Your task to perform on an android device: When is my next meeting? Image 0: 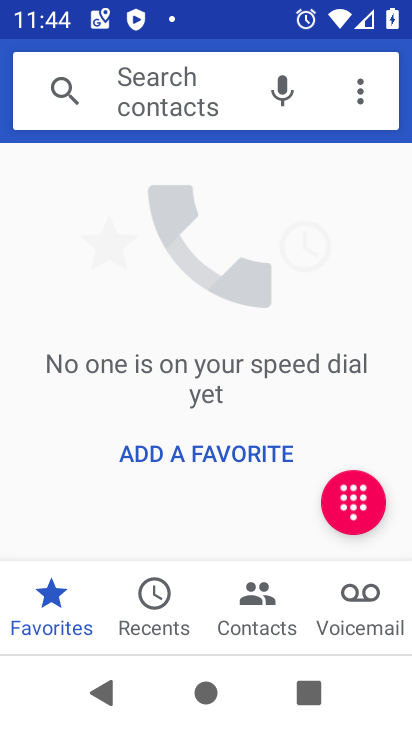
Step 0: press home button
Your task to perform on an android device: When is my next meeting? Image 1: 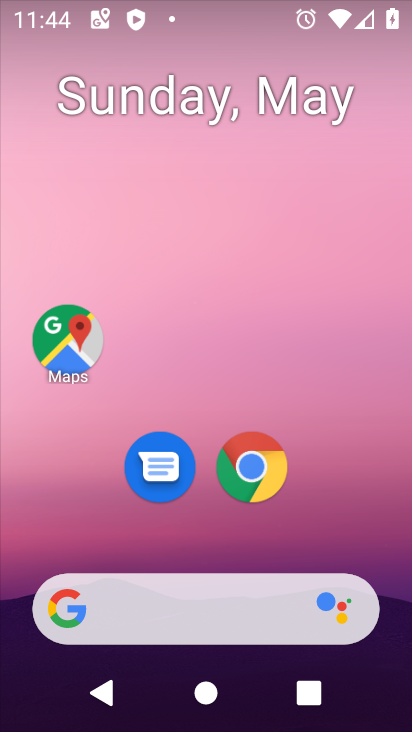
Step 1: drag from (374, 567) to (356, 18)
Your task to perform on an android device: When is my next meeting? Image 2: 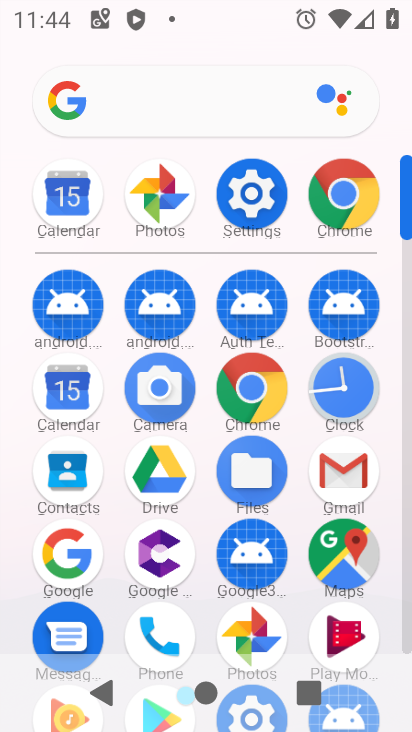
Step 2: click (69, 203)
Your task to perform on an android device: When is my next meeting? Image 3: 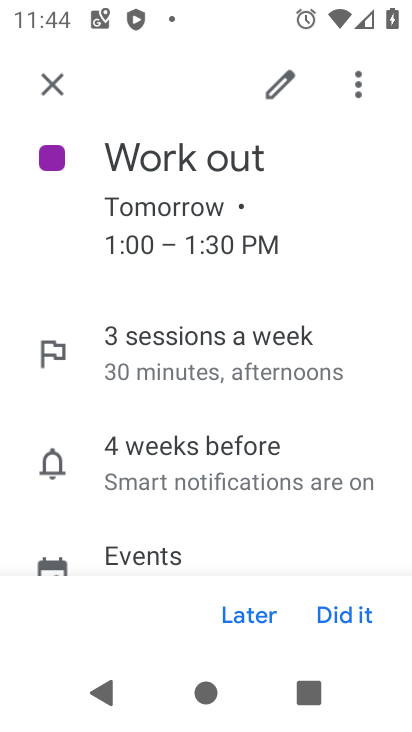
Step 3: click (43, 98)
Your task to perform on an android device: When is my next meeting? Image 4: 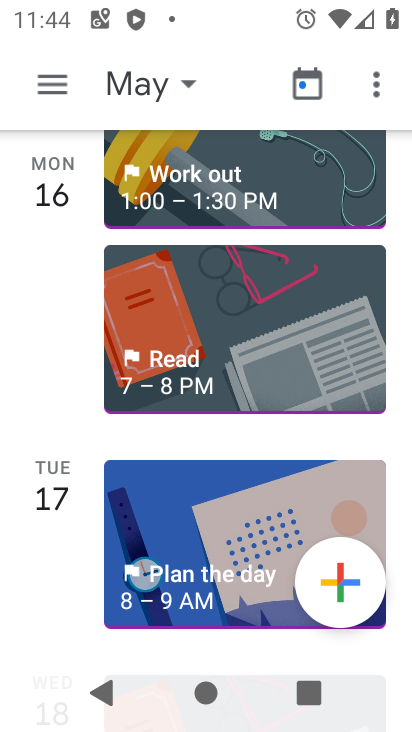
Step 4: drag from (274, 479) to (264, 63)
Your task to perform on an android device: When is my next meeting? Image 5: 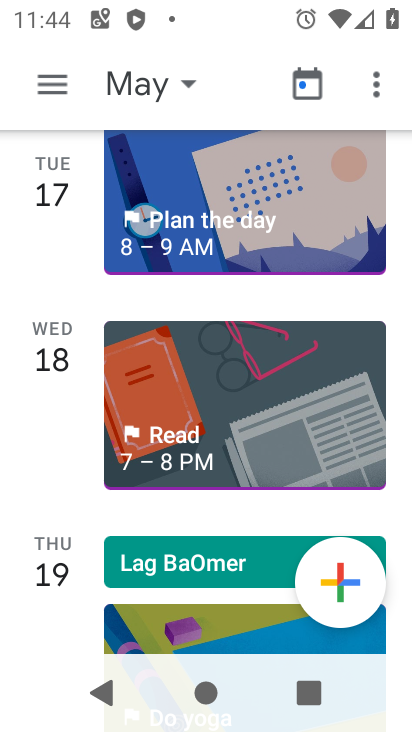
Step 5: drag from (249, 547) to (198, 89)
Your task to perform on an android device: When is my next meeting? Image 6: 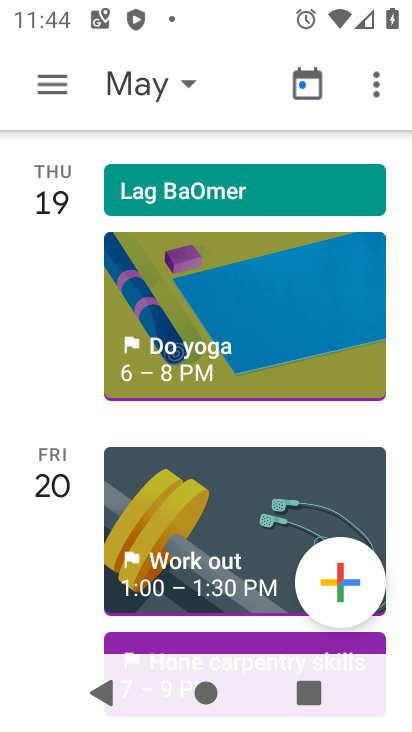
Step 6: drag from (207, 540) to (195, 103)
Your task to perform on an android device: When is my next meeting? Image 7: 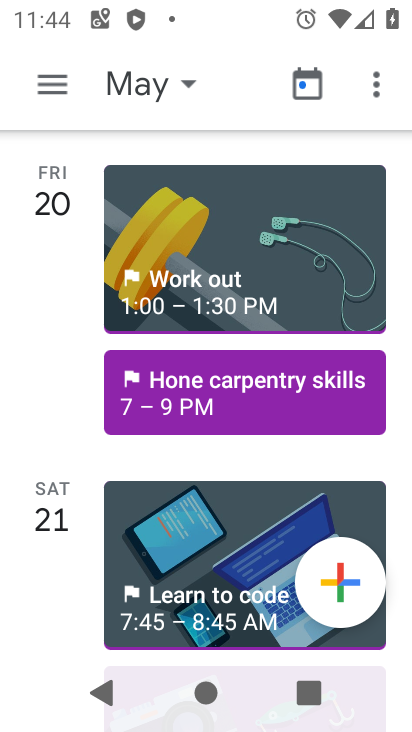
Step 7: click (204, 397)
Your task to perform on an android device: When is my next meeting? Image 8: 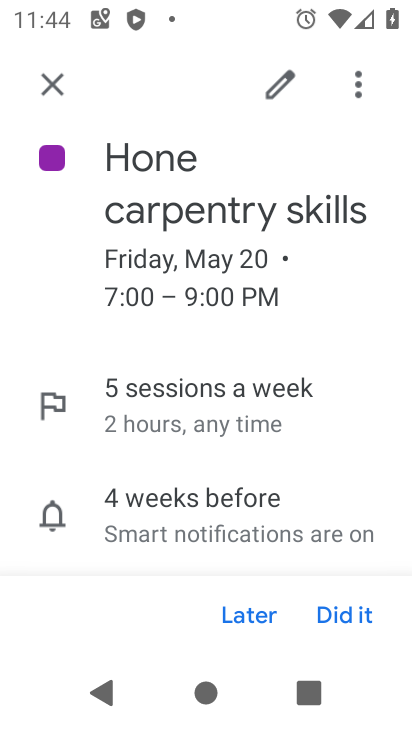
Step 8: task complete